Your task to perform on an android device: Search for hotels in Seattle Image 0: 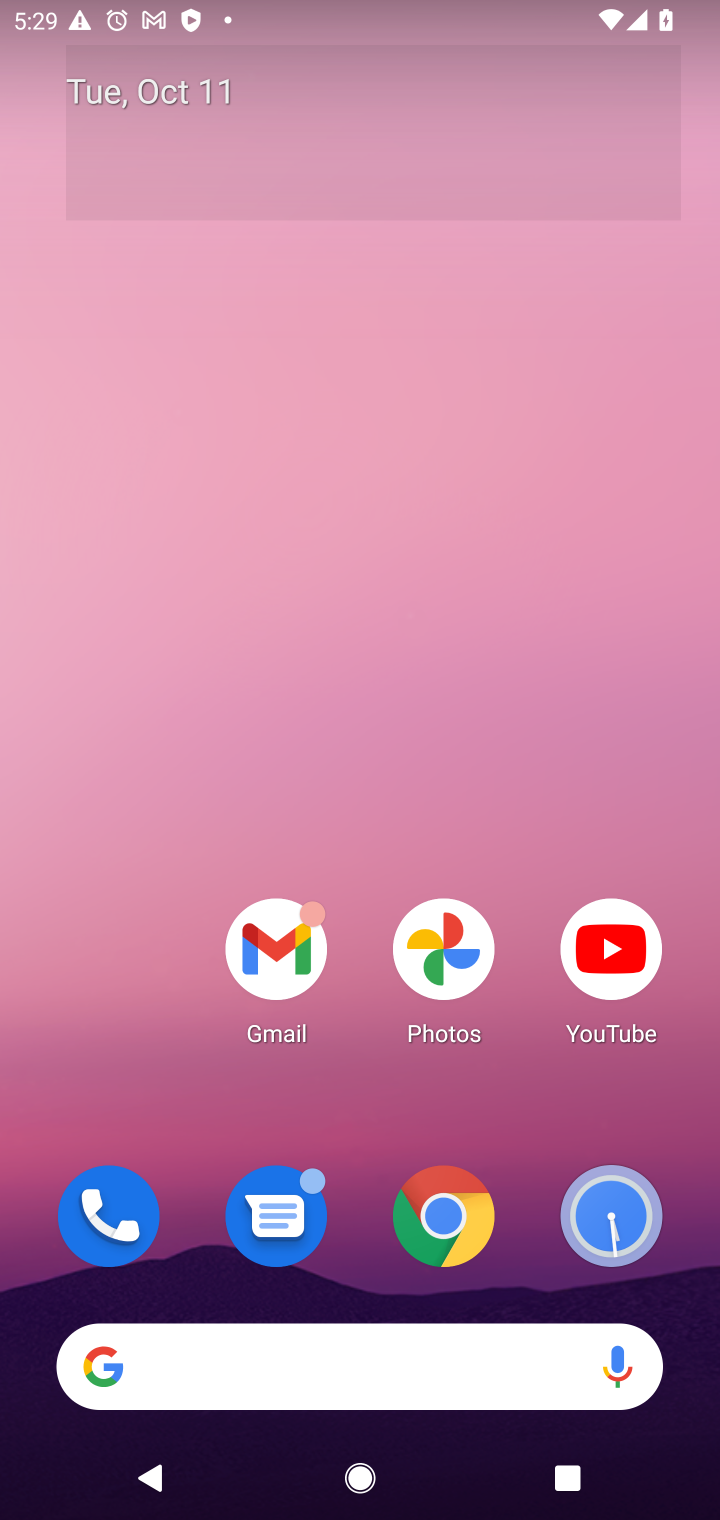
Step 0: click (442, 1249)
Your task to perform on an android device: Search for hotels in Seattle Image 1: 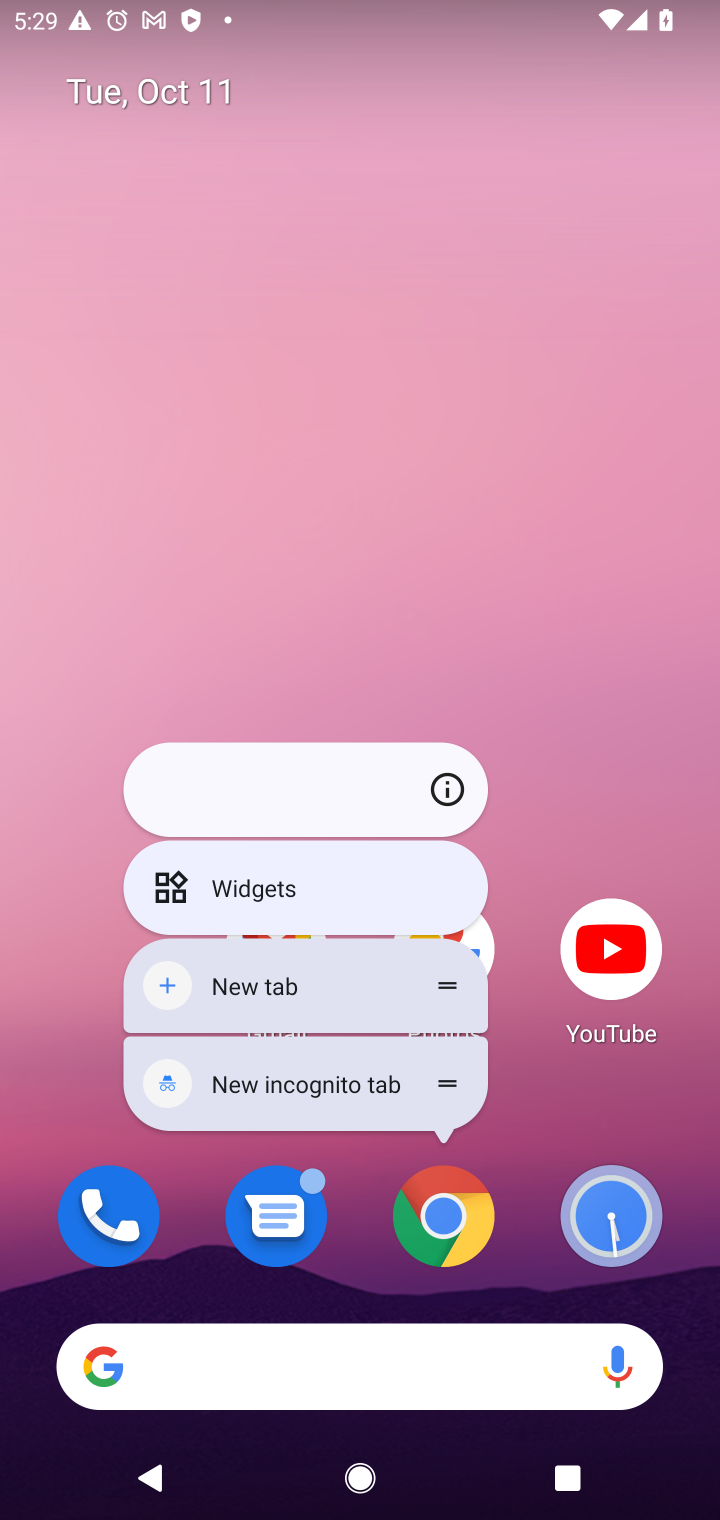
Step 1: click (420, 1210)
Your task to perform on an android device: Search for hotels in Seattle Image 2: 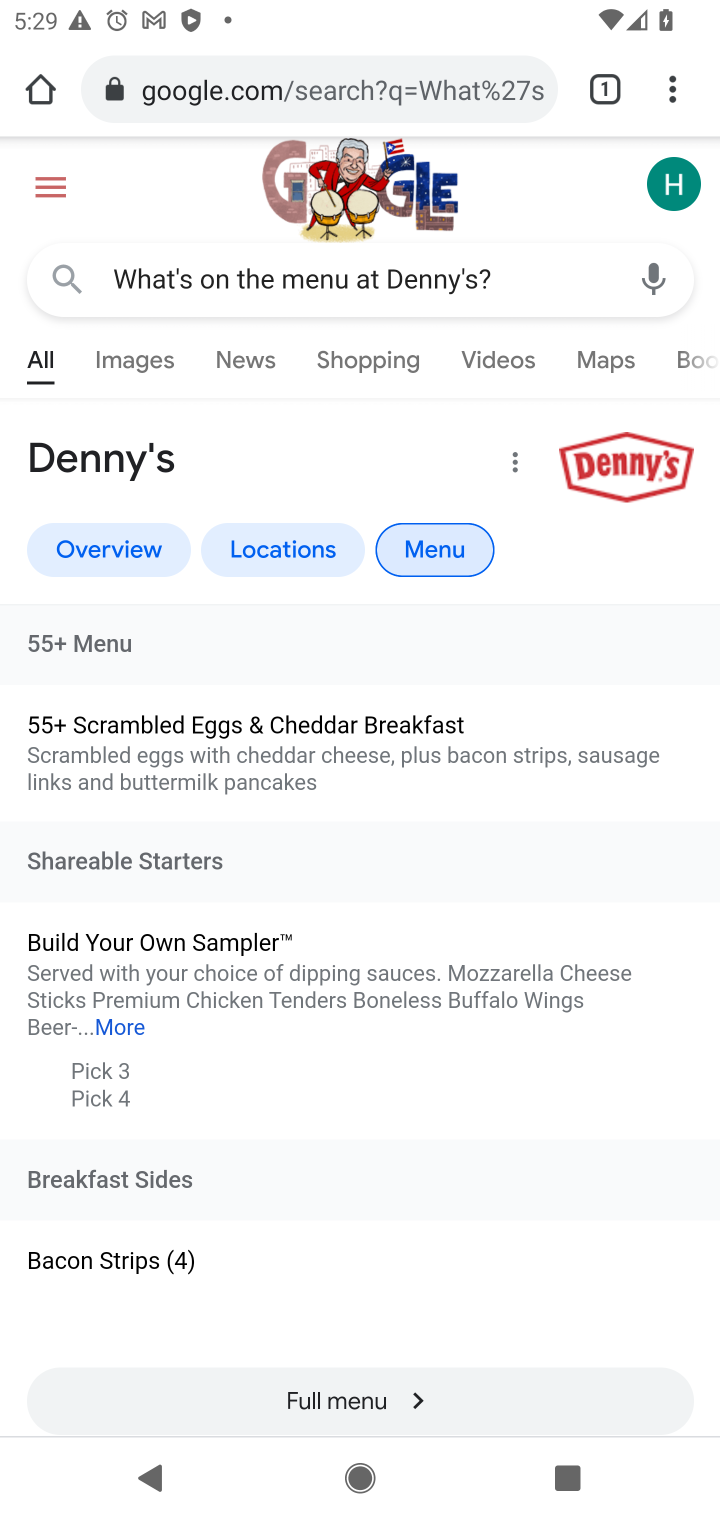
Step 2: click (507, 273)
Your task to perform on an android device: Search for hotels in Seattle Image 3: 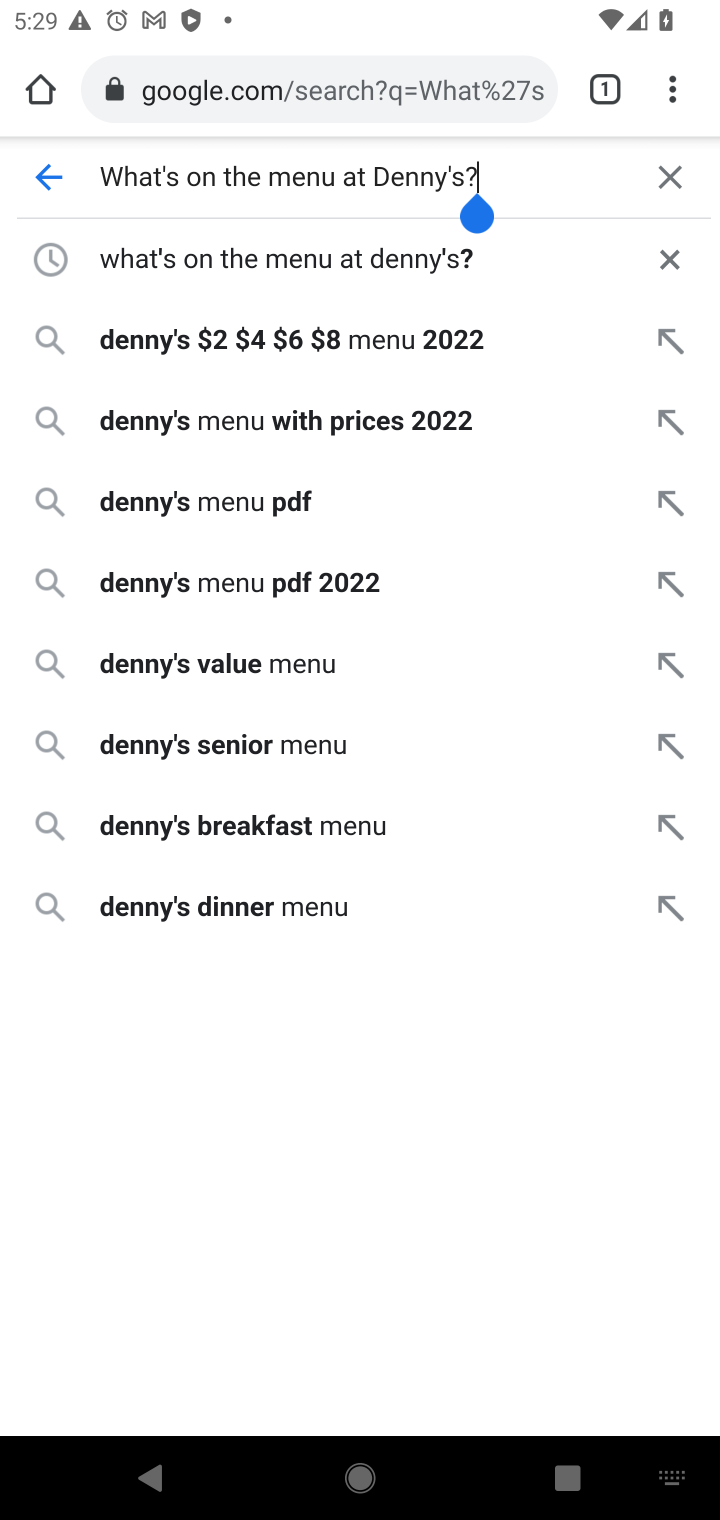
Step 3: click (679, 173)
Your task to perform on an android device: Search for hotels in Seattle Image 4: 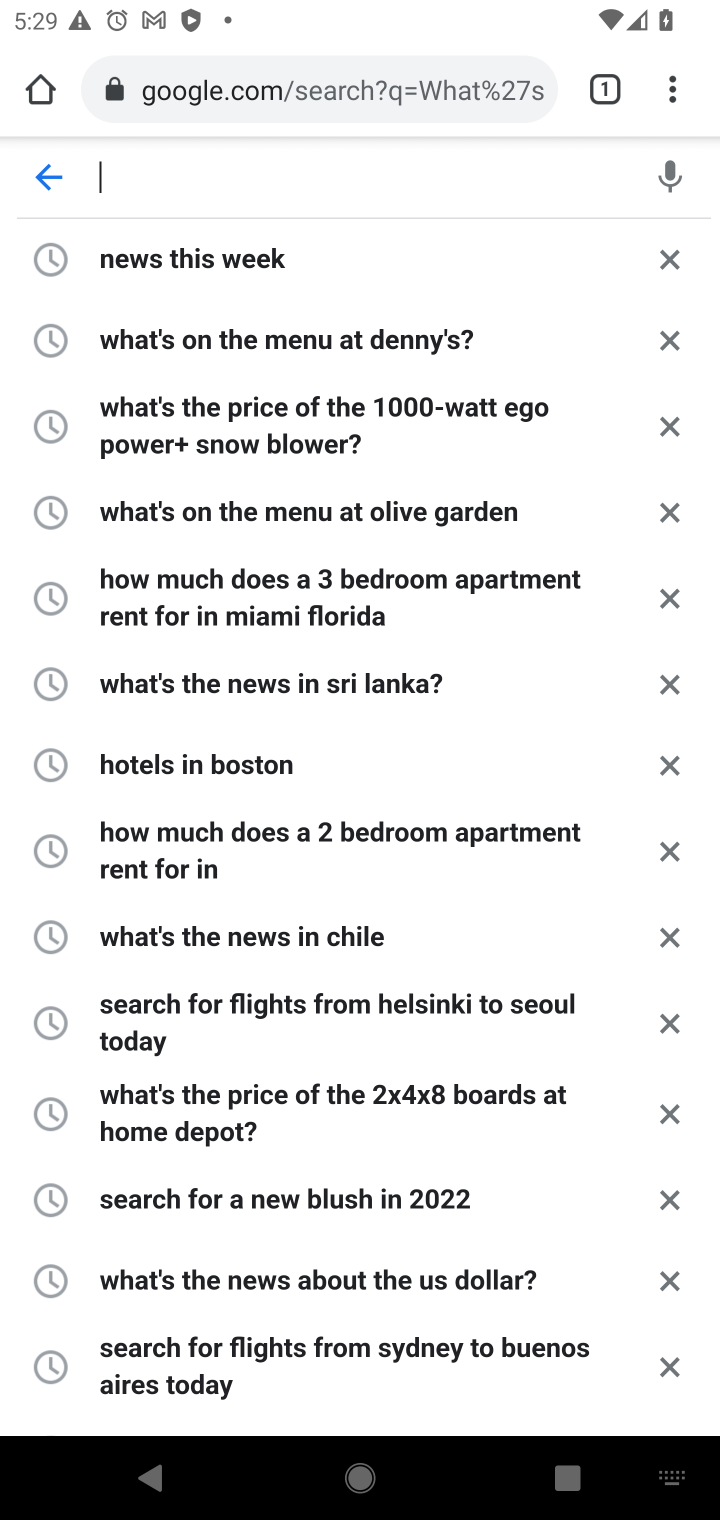
Step 4: type "hotels in seattle"
Your task to perform on an android device: Search for hotels in Seattle Image 5: 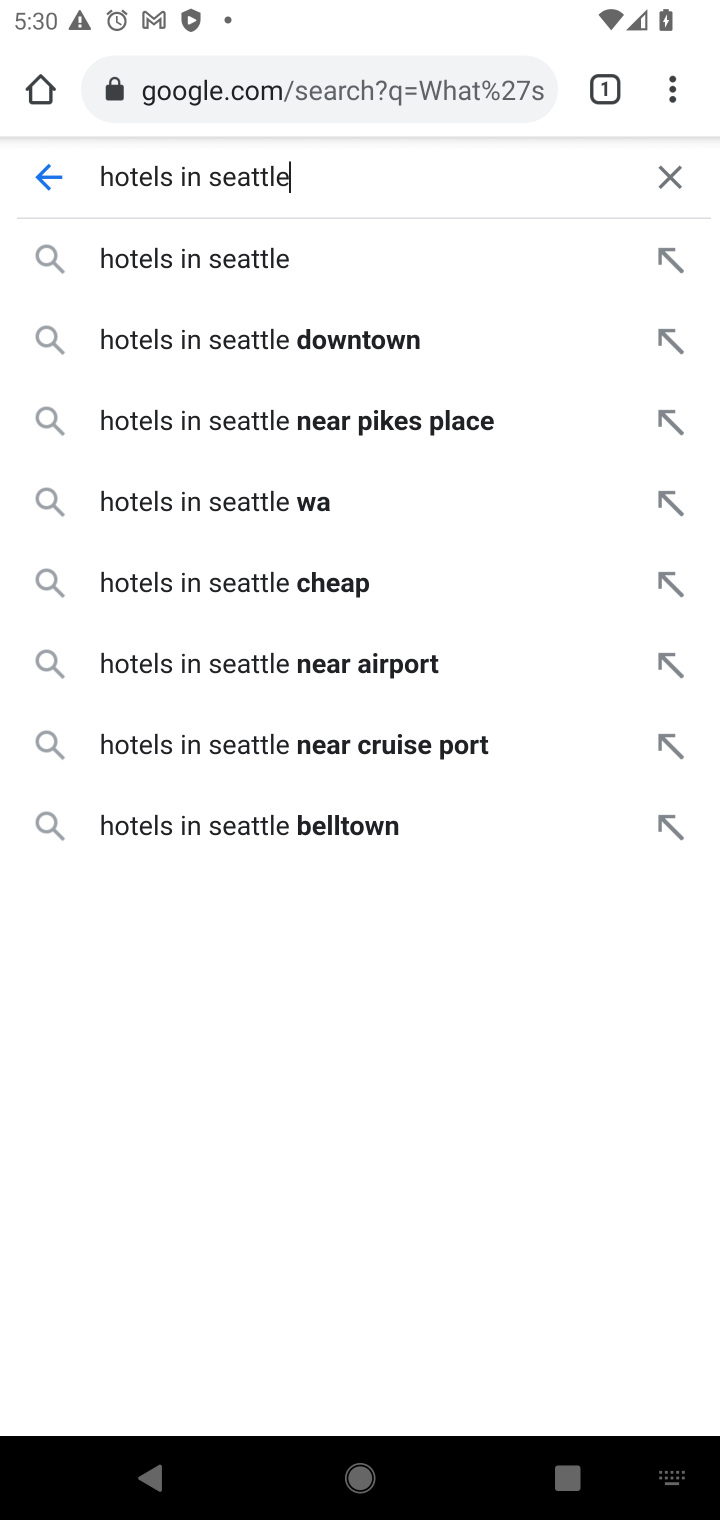
Step 5: click (199, 258)
Your task to perform on an android device: Search for hotels in Seattle Image 6: 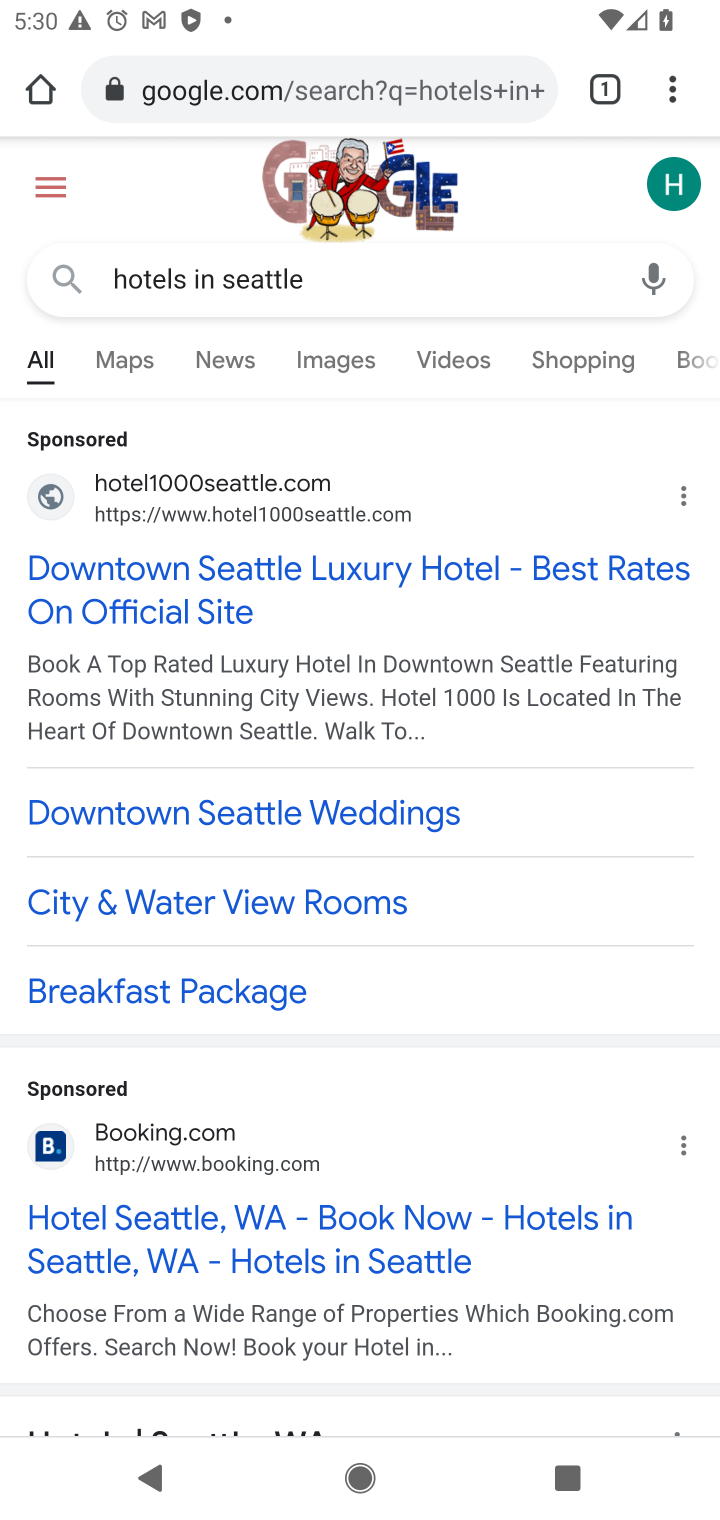
Step 6: task complete